Your task to perform on an android device: set default search engine in the chrome app Image 0: 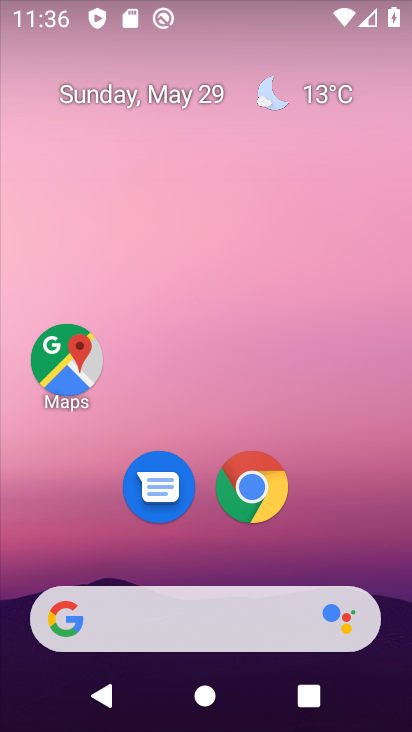
Step 0: click (249, 483)
Your task to perform on an android device: set default search engine in the chrome app Image 1: 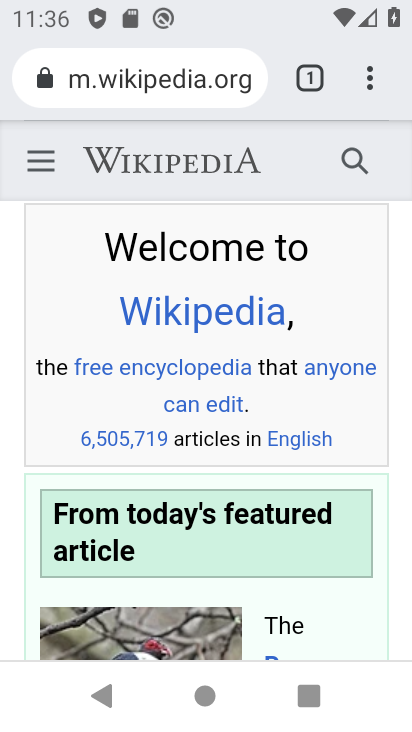
Step 1: click (389, 77)
Your task to perform on an android device: set default search engine in the chrome app Image 2: 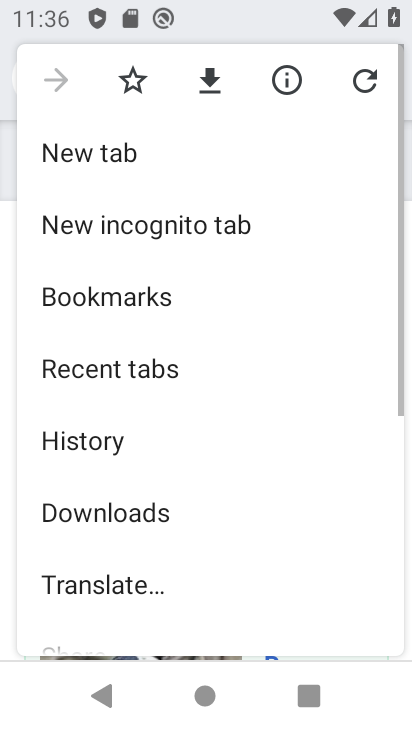
Step 2: drag from (246, 468) to (230, 192)
Your task to perform on an android device: set default search engine in the chrome app Image 3: 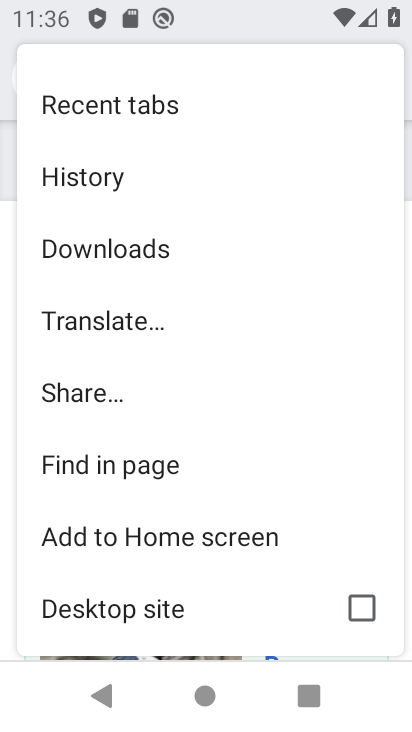
Step 3: drag from (181, 634) to (164, 438)
Your task to perform on an android device: set default search engine in the chrome app Image 4: 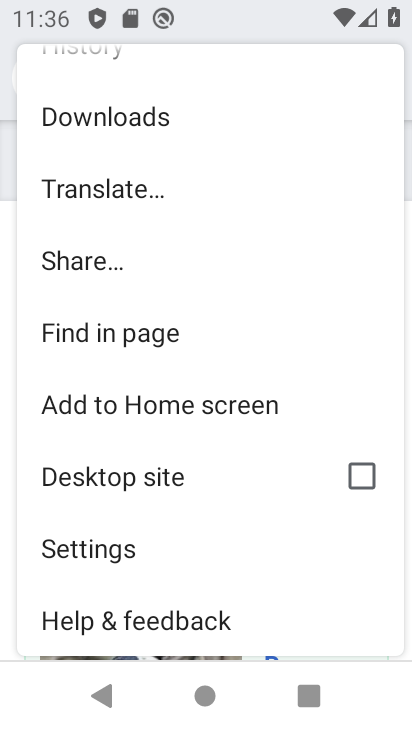
Step 4: click (140, 544)
Your task to perform on an android device: set default search engine in the chrome app Image 5: 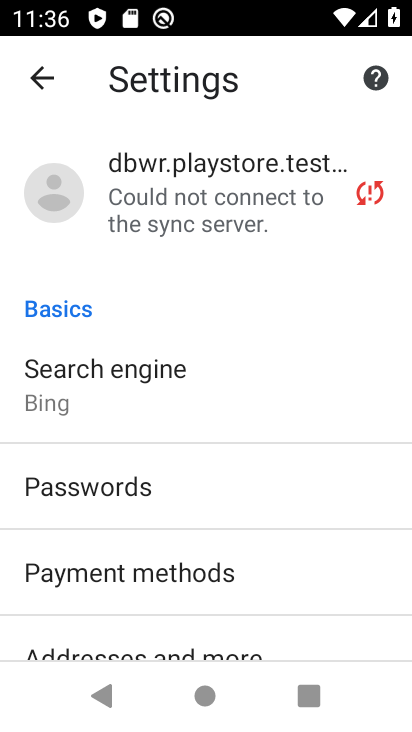
Step 5: drag from (194, 601) to (175, 426)
Your task to perform on an android device: set default search engine in the chrome app Image 6: 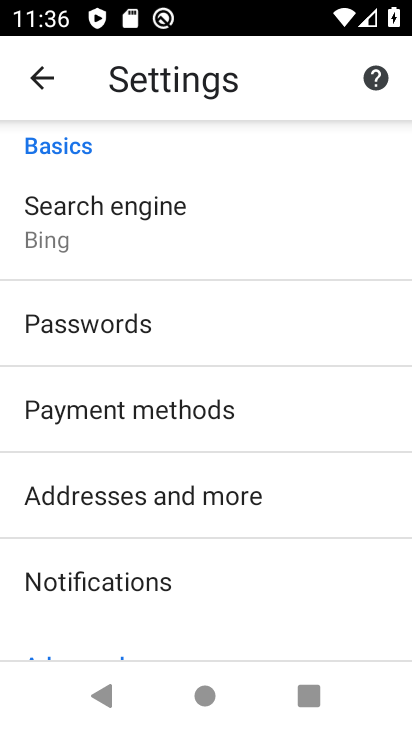
Step 6: click (136, 228)
Your task to perform on an android device: set default search engine in the chrome app Image 7: 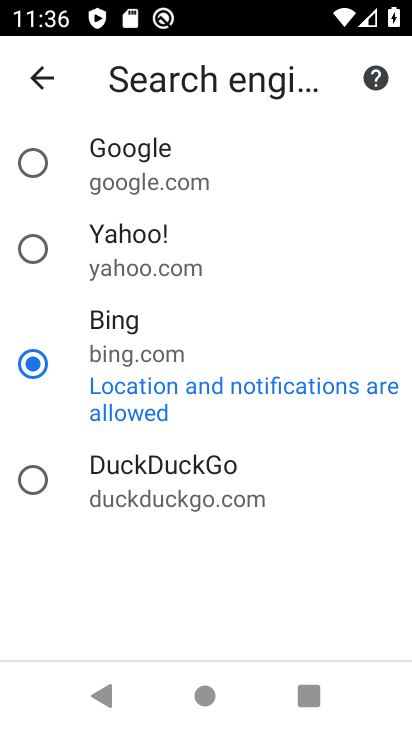
Step 7: click (137, 182)
Your task to perform on an android device: set default search engine in the chrome app Image 8: 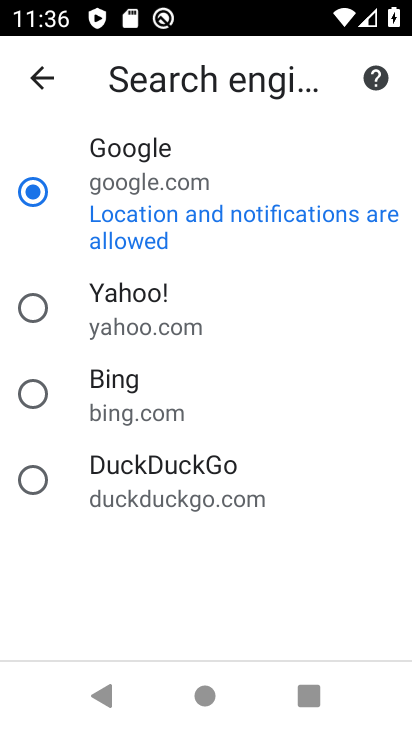
Step 8: task complete